Your task to perform on an android device: change text size in settings app Image 0: 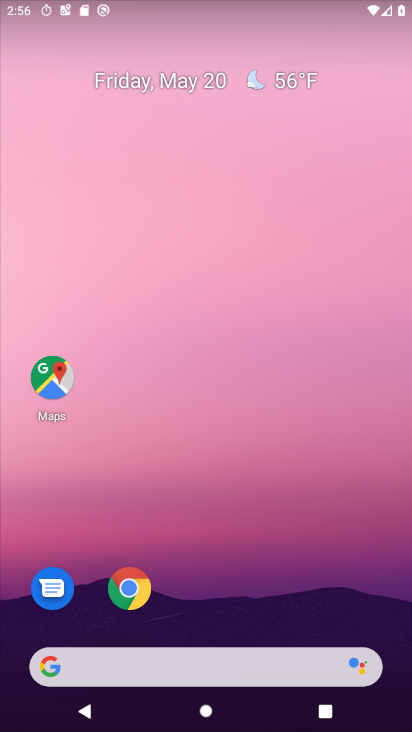
Step 0: drag from (3, 720) to (287, 219)
Your task to perform on an android device: change text size in settings app Image 1: 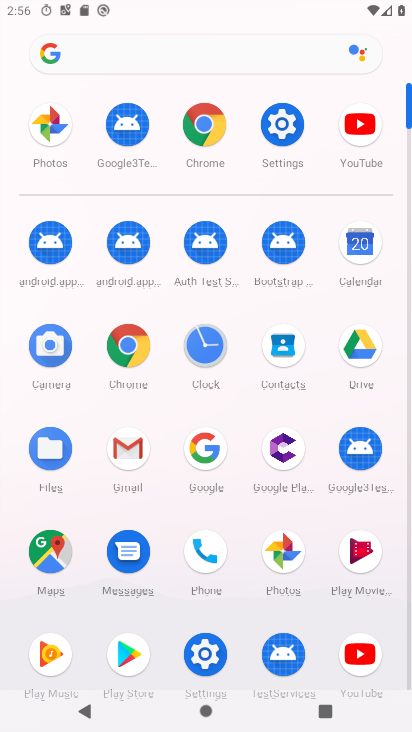
Step 1: click (275, 117)
Your task to perform on an android device: change text size in settings app Image 2: 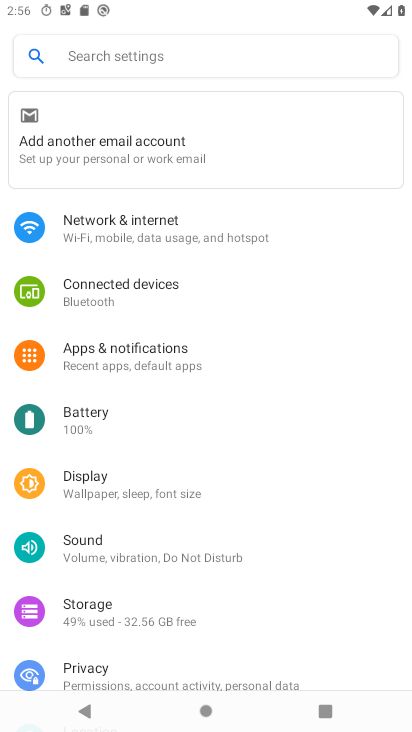
Step 2: drag from (3, 488) to (160, 192)
Your task to perform on an android device: change text size in settings app Image 3: 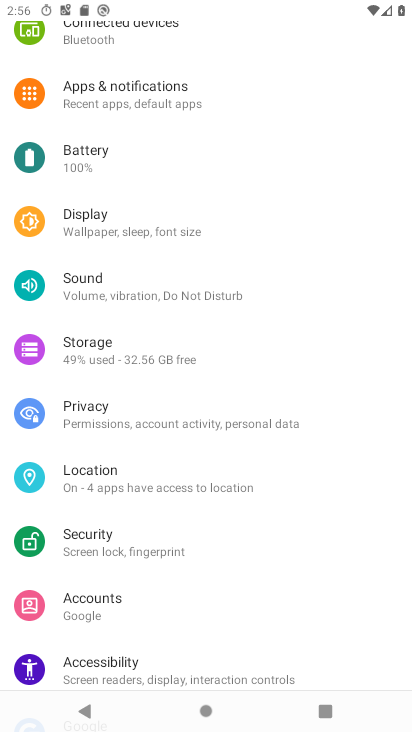
Step 3: click (182, 232)
Your task to perform on an android device: change text size in settings app Image 4: 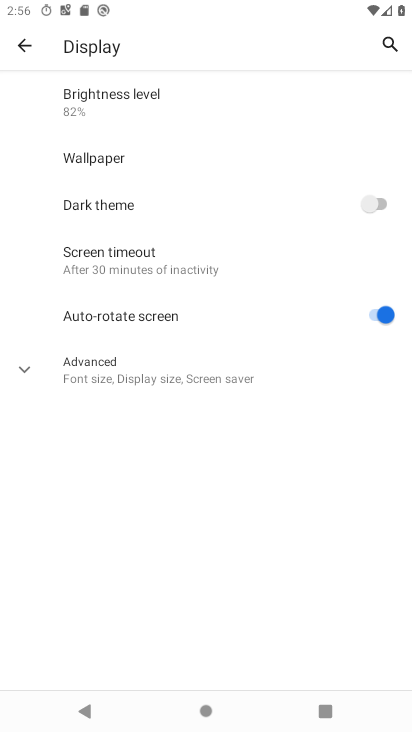
Step 4: click (172, 369)
Your task to perform on an android device: change text size in settings app Image 5: 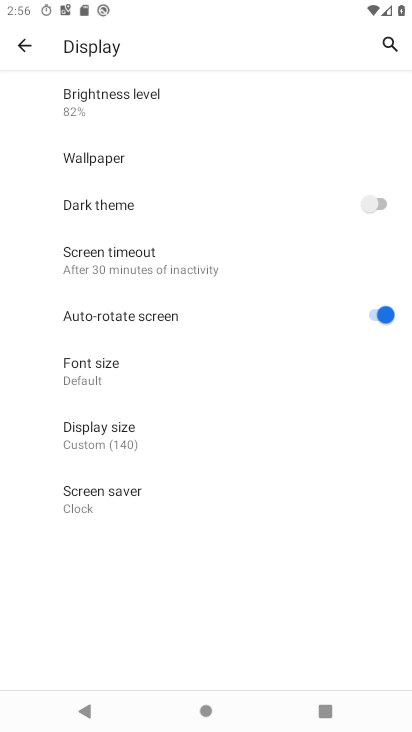
Step 5: click (79, 370)
Your task to perform on an android device: change text size in settings app Image 6: 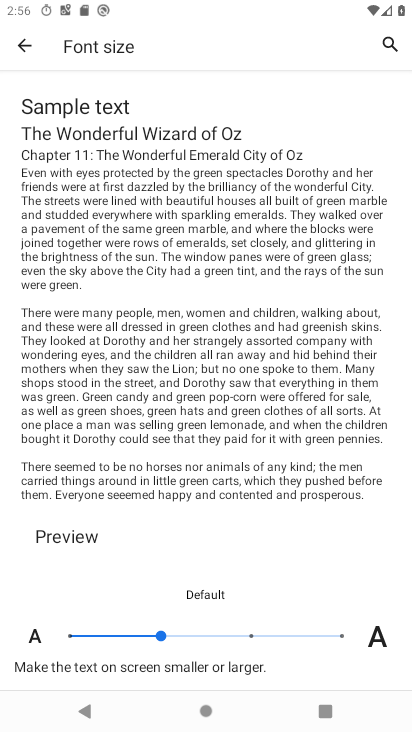
Step 6: click (242, 629)
Your task to perform on an android device: change text size in settings app Image 7: 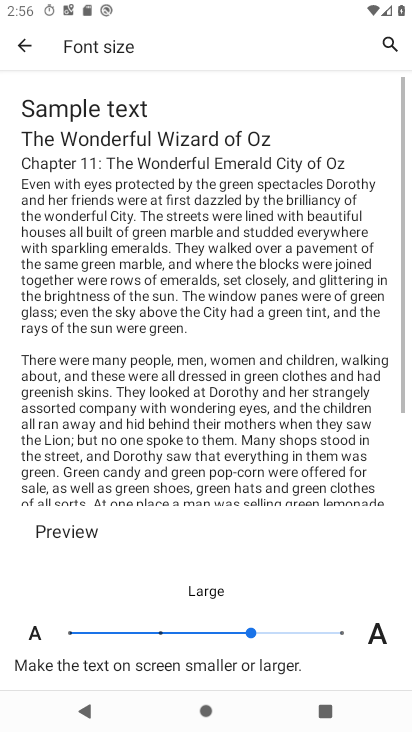
Step 7: task complete